Your task to perform on an android device: Go to Maps Image 0: 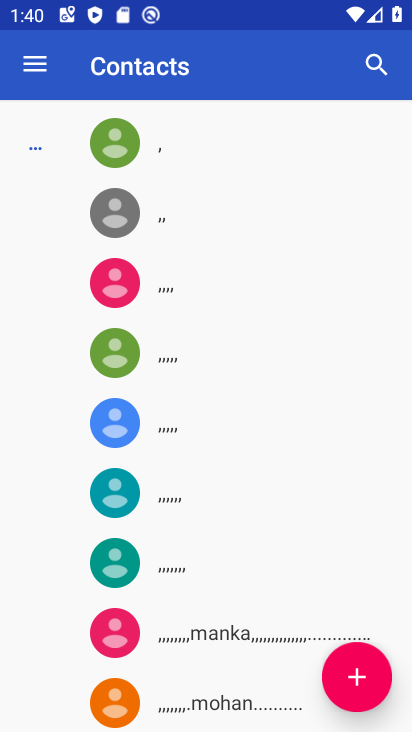
Step 0: press home button
Your task to perform on an android device: Go to Maps Image 1: 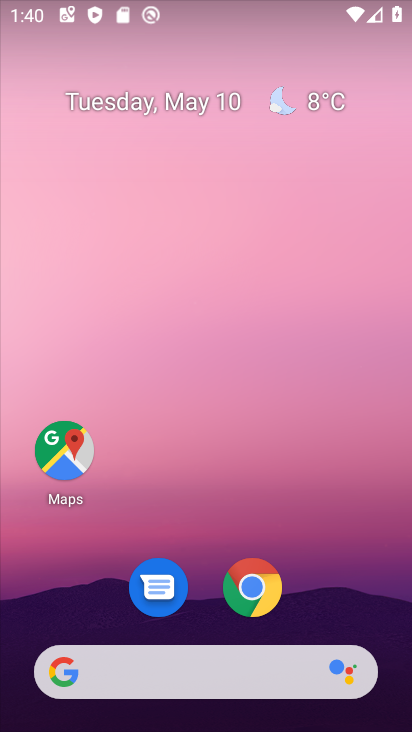
Step 1: click (65, 441)
Your task to perform on an android device: Go to Maps Image 2: 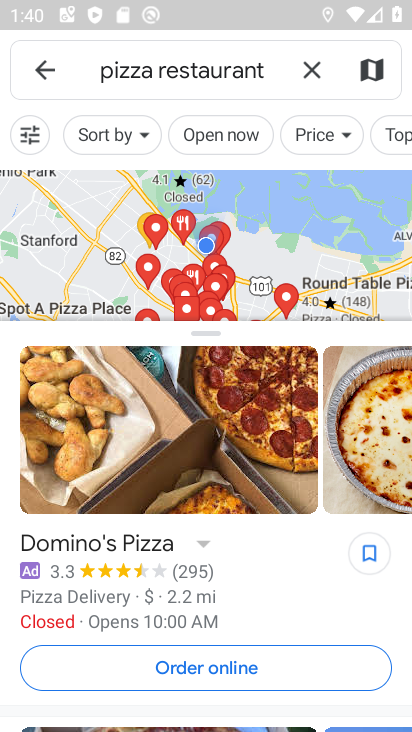
Step 2: task complete